Your task to perform on an android device: Show me popular games on the Play Store Image 0: 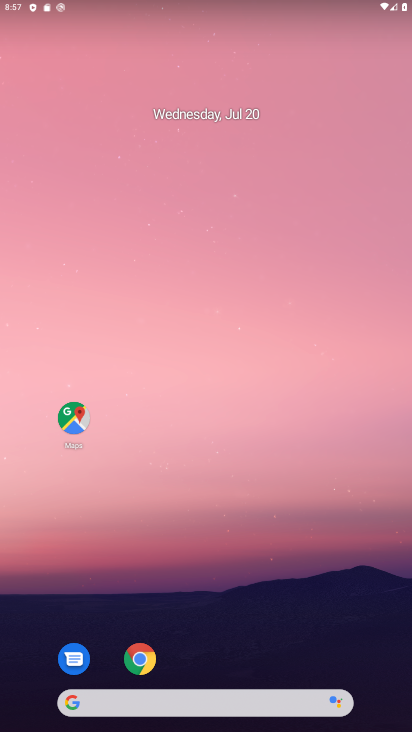
Step 0: drag from (215, 677) to (189, 109)
Your task to perform on an android device: Show me popular games on the Play Store Image 1: 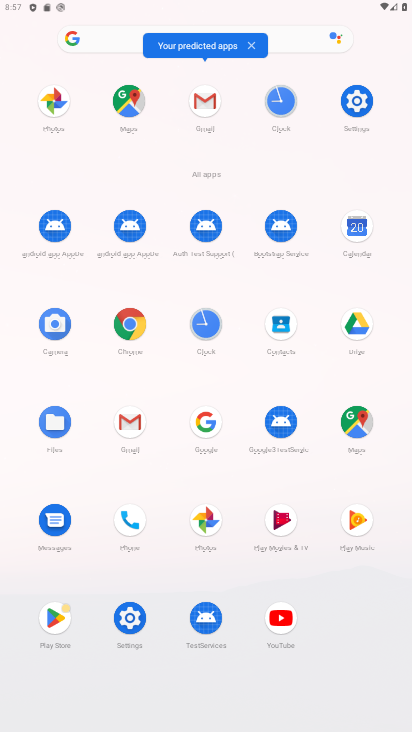
Step 1: click (52, 602)
Your task to perform on an android device: Show me popular games on the Play Store Image 2: 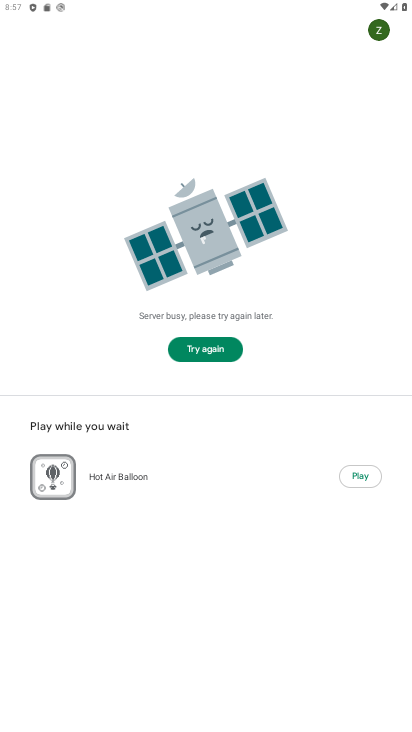
Step 2: click (215, 347)
Your task to perform on an android device: Show me popular games on the Play Store Image 3: 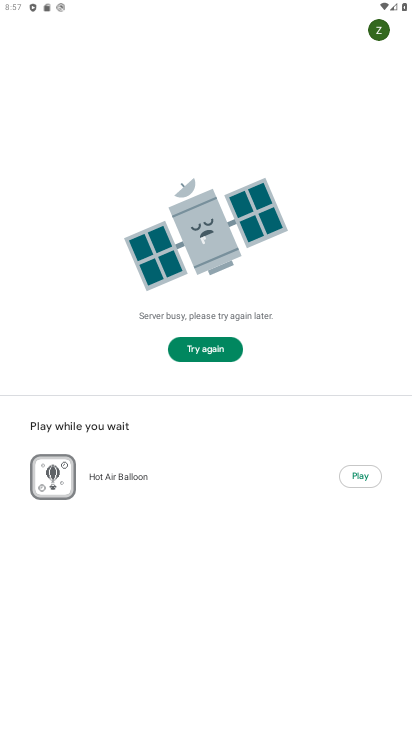
Step 3: click (215, 347)
Your task to perform on an android device: Show me popular games on the Play Store Image 4: 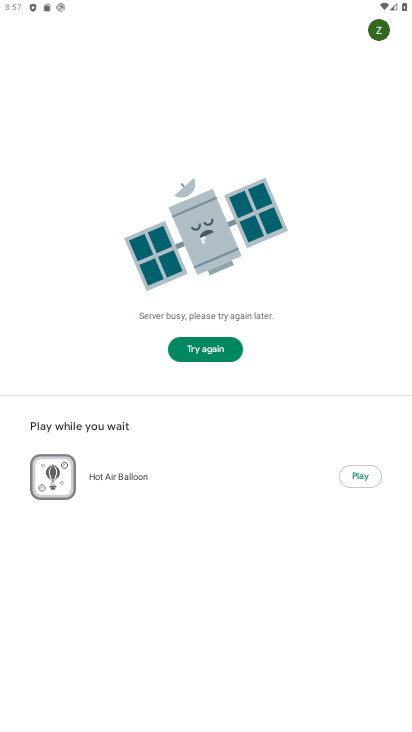
Step 4: task complete